Your task to perform on an android device: Open internet settings Image 0: 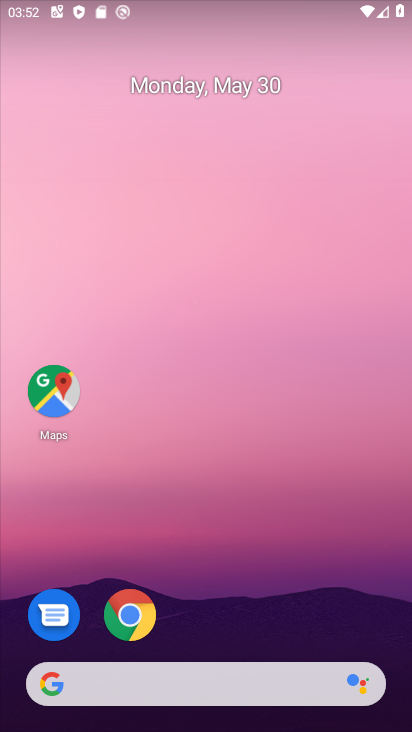
Step 0: drag from (240, 585) to (268, 112)
Your task to perform on an android device: Open internet settings Image 1: 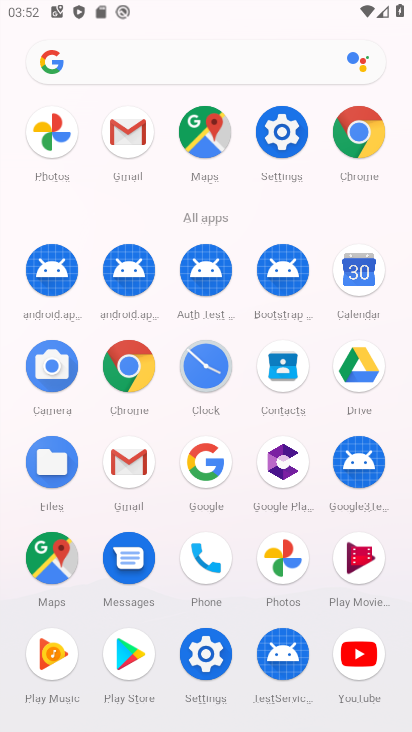
Step 1: click (283, 133)
Your task to perform on an android device: Open internet settings Image 2: 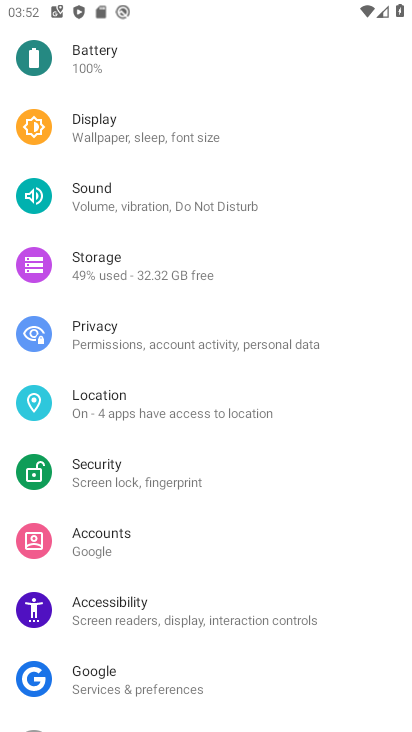
Step 2: drag from (167, 185) to (176, 271)
Your task to perform on an android device: Open internet settings Image 3: 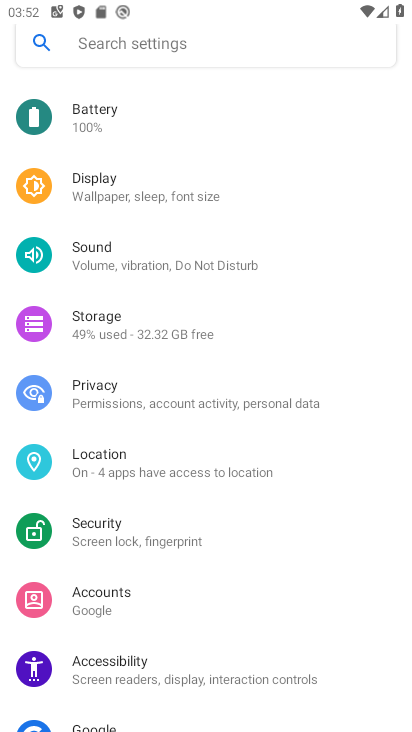
Step 3: drag from (182, 141) to (183, 298)
Your task to perform on an android device: Open internet settings Image 4: 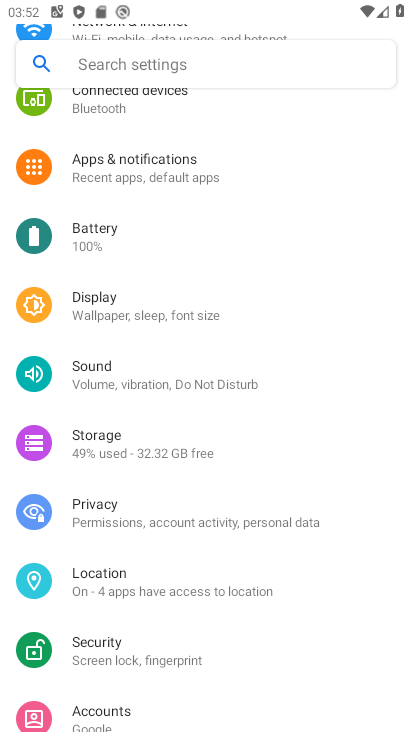
Step 4: drag from (138, 139) to (175, 376)
Your task to perform on an android device: Open internet settings Image 5: 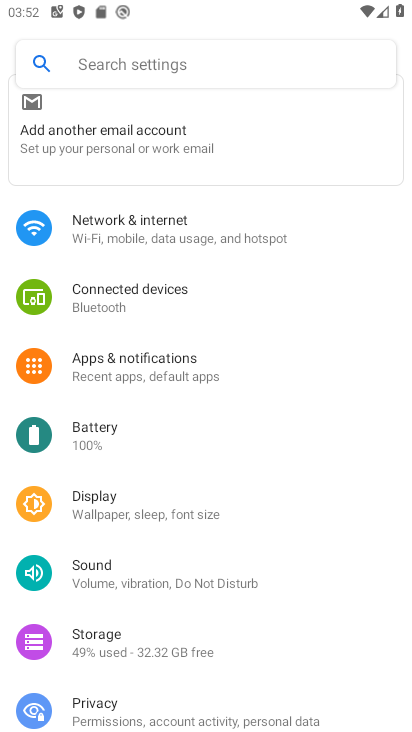
Step 5: click (140, 235)
Your task to perform on an android device: Open internet settings Image 6: 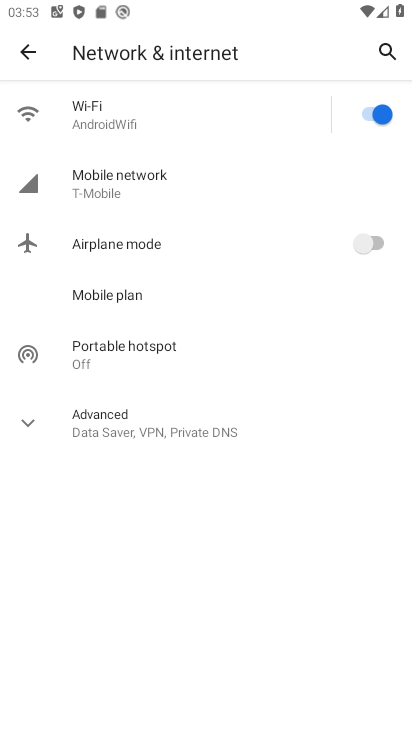
Step 6: click (117, 125)
Your task to perform on an android device: Open internet settings Image 7: 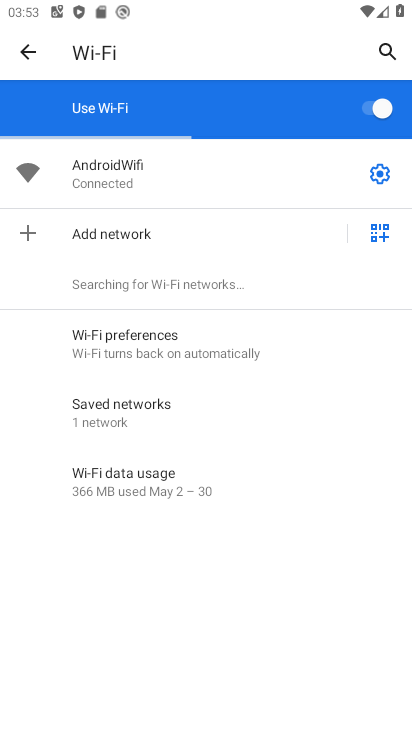
Step 7: task complete